Your task to perform on an android device: set the timer Image 0: 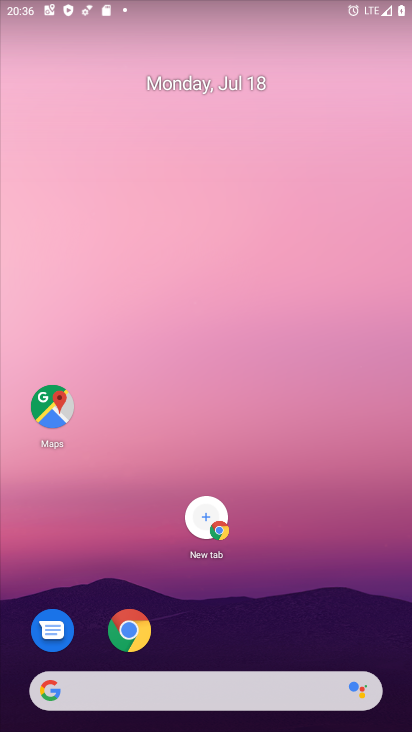
Step 0: drag from (225, 649) to (276, 259)
Your task to perform on an android device: set the timer Image 1: 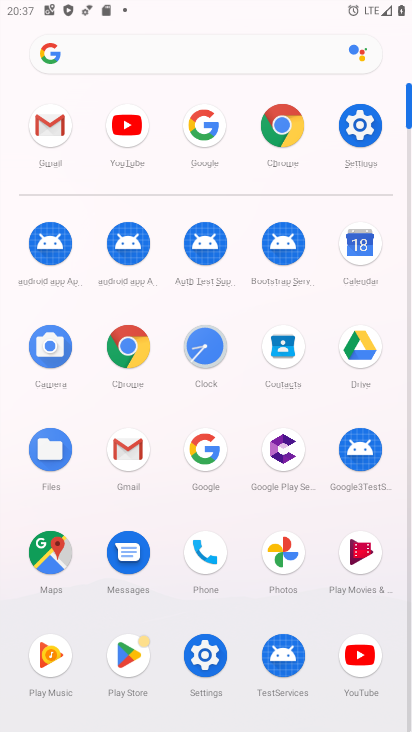
Step 1: click (216, 351)
Your task to perform on an android device: set the timer Image 2: 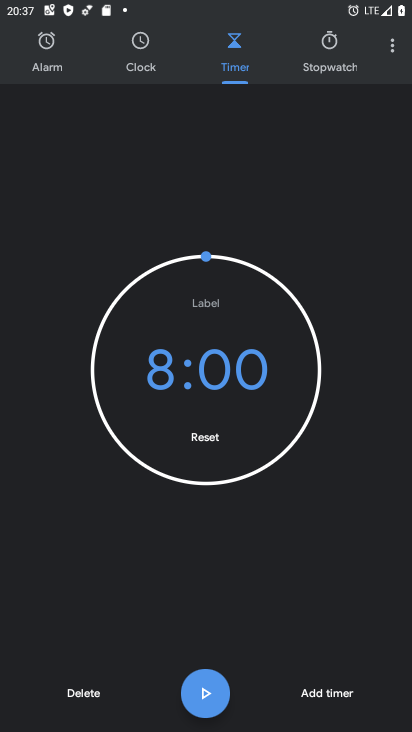
Step 2: press home button
Your task to perform on an android device: set the timer Image 3: 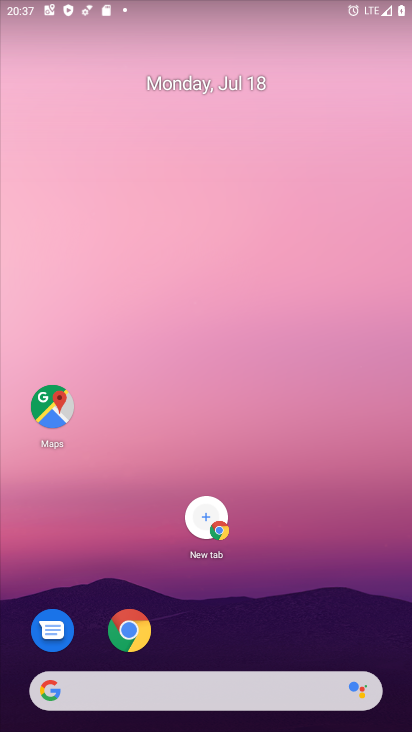
Step 3: drag from (171, 679) to (284, 395)
Your task to perform on an android device: set the timer Image 4: 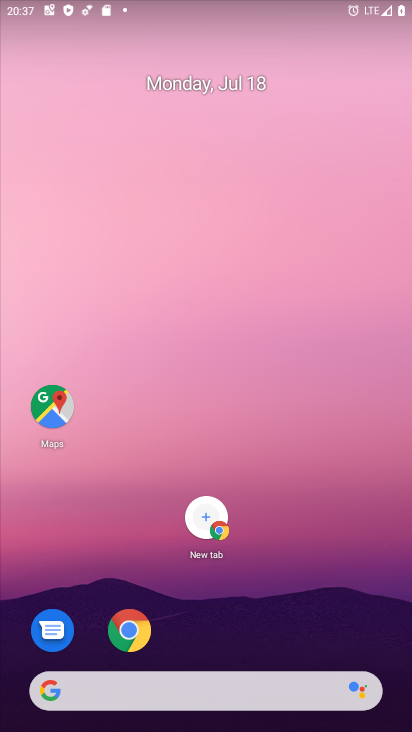
Step 4: drag from (295, 679) to (390, 123)
Your task to perform on an android device: set the timer Image 5: 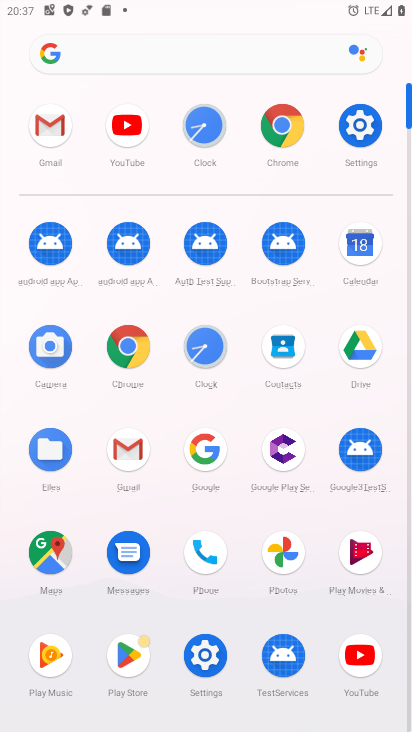
Step 5: click (208, 133)
Your task to perform on an android device: set the timer Image 6: 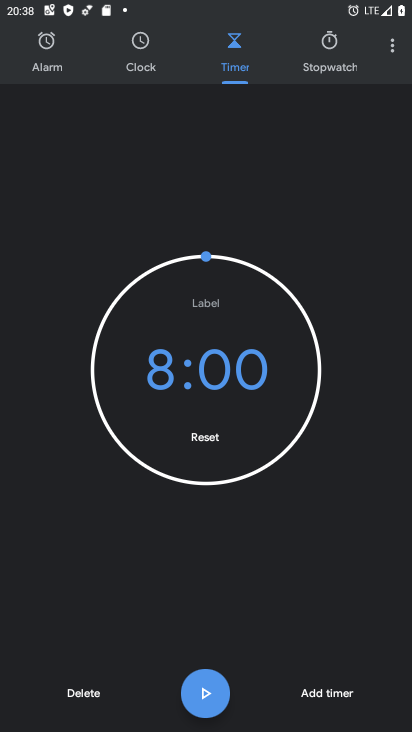
Step 6: task complete